Your task to perform on an android device: uninstall "Calculator" Image 0: 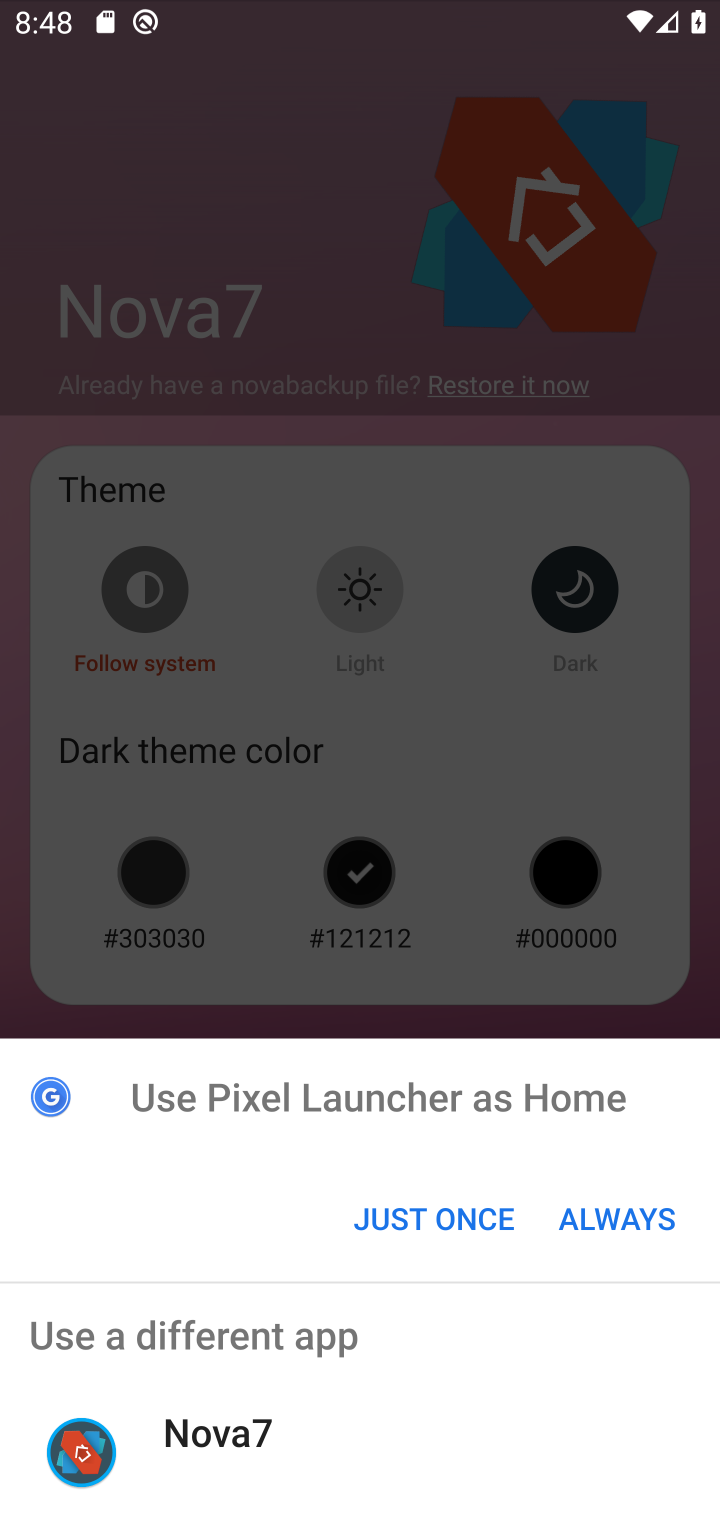
Step 0: press home button
Your task to perform on an android device: uninstall "Calculator" Image 1: 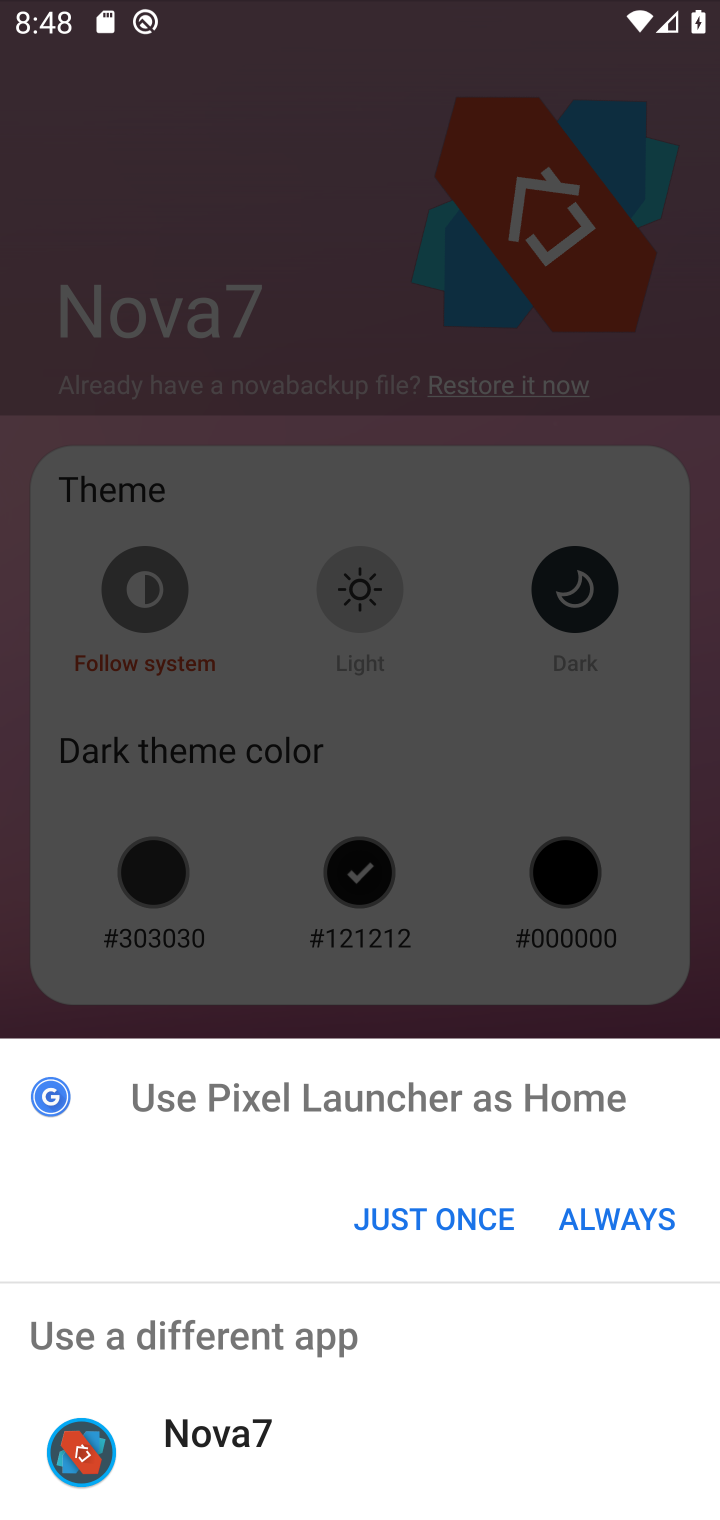
Step 1: click (457, 1219)
Your task to perform on an android device: uninstall "Calculator" Image 2: 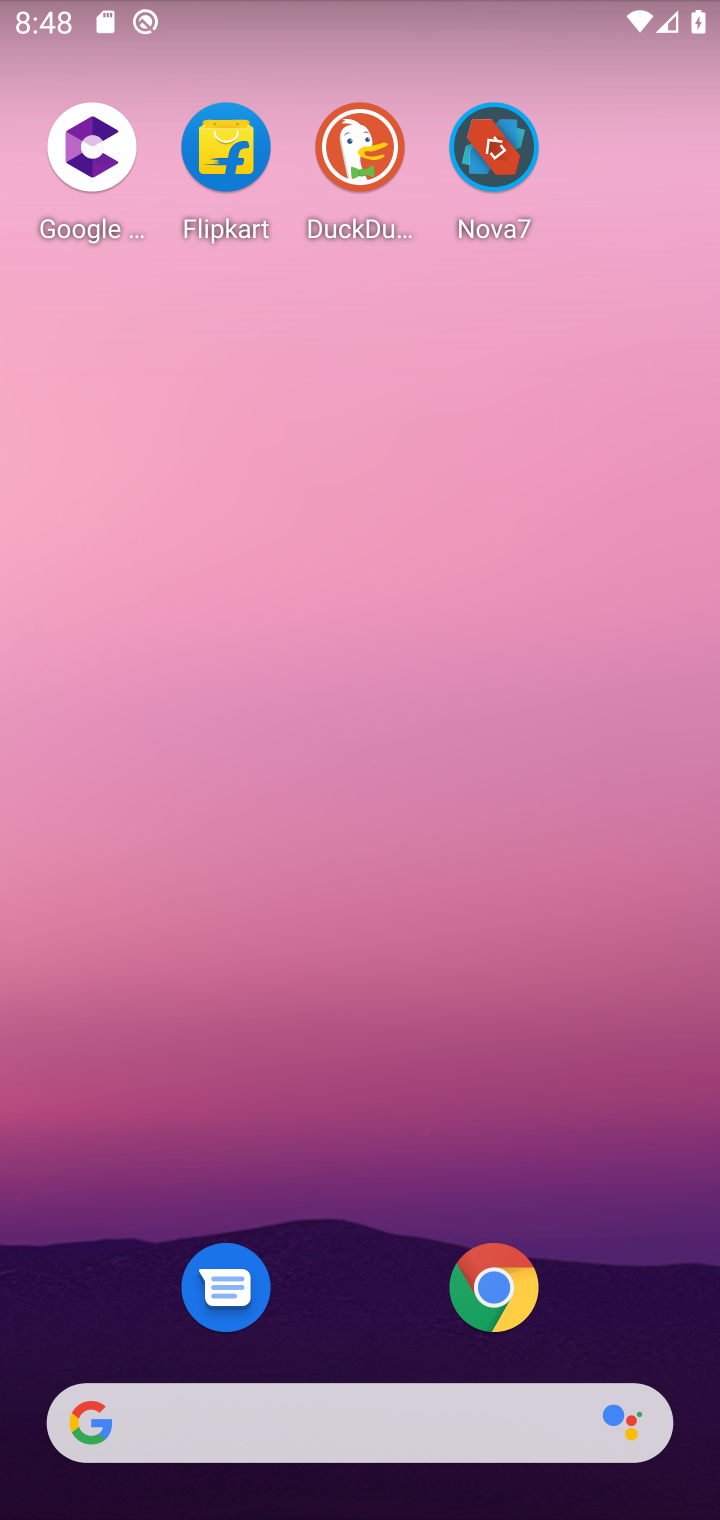
Step 2: drag from (327, 1286) to (277, 78)
Your task to perform on an android device: uninstall "Calculator" Image 3: 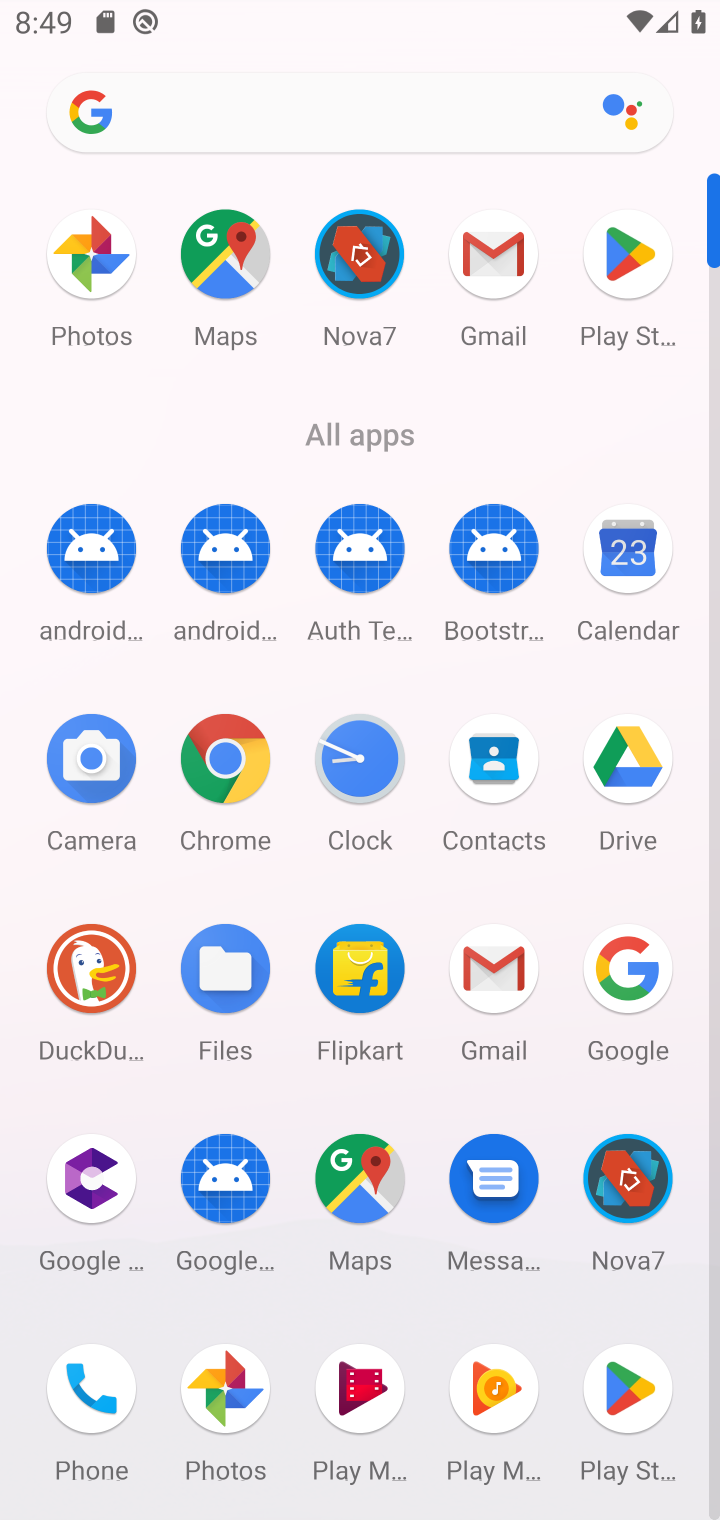
Step 3: click (632, 261)
Your task to perform on an android device: uninstall "Calculator" Image 4: 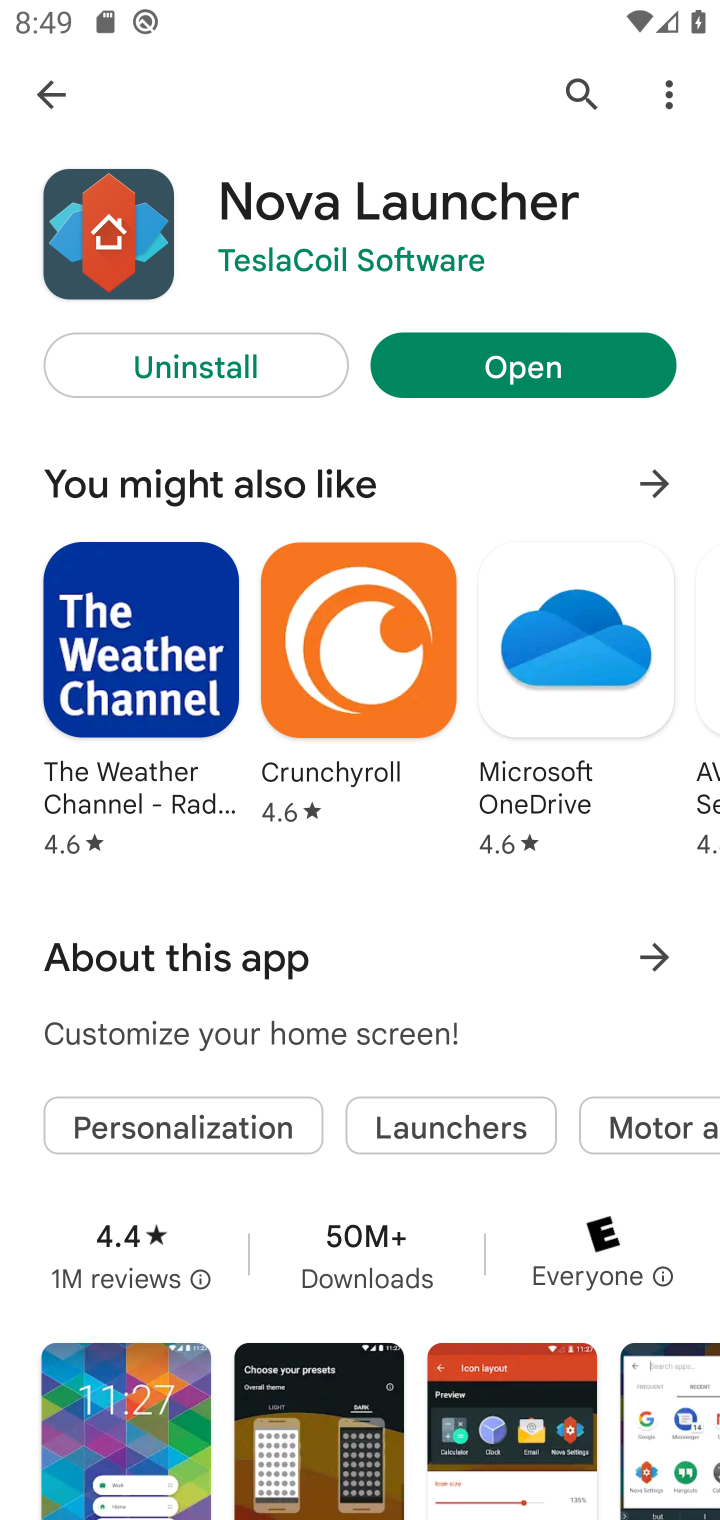
Step 4: click (573, 77)
Your task to perform on an android device: uninstall "Calculator" Image 5: 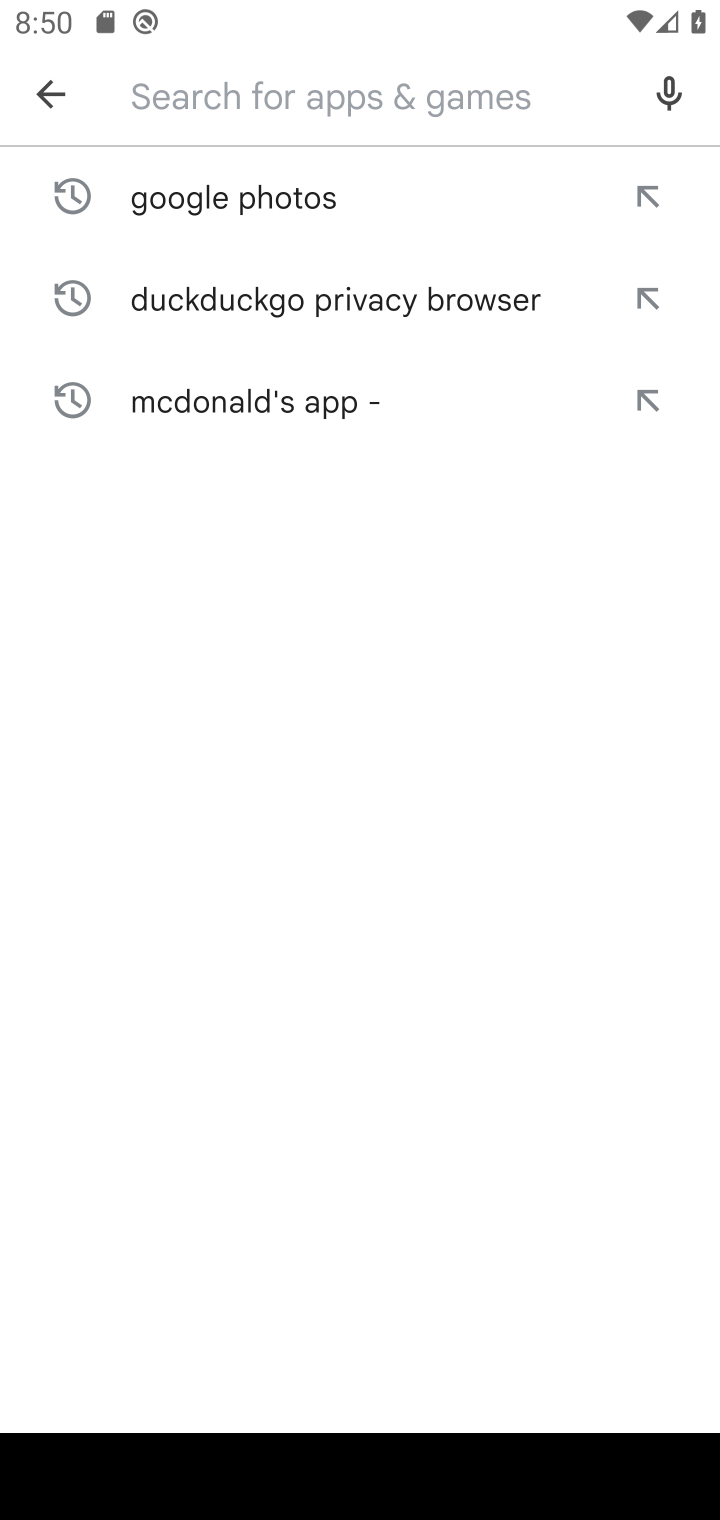
Step 5: type "Calculato"
Your task to perform on an android device: uninstall "Calculator" Image 6: 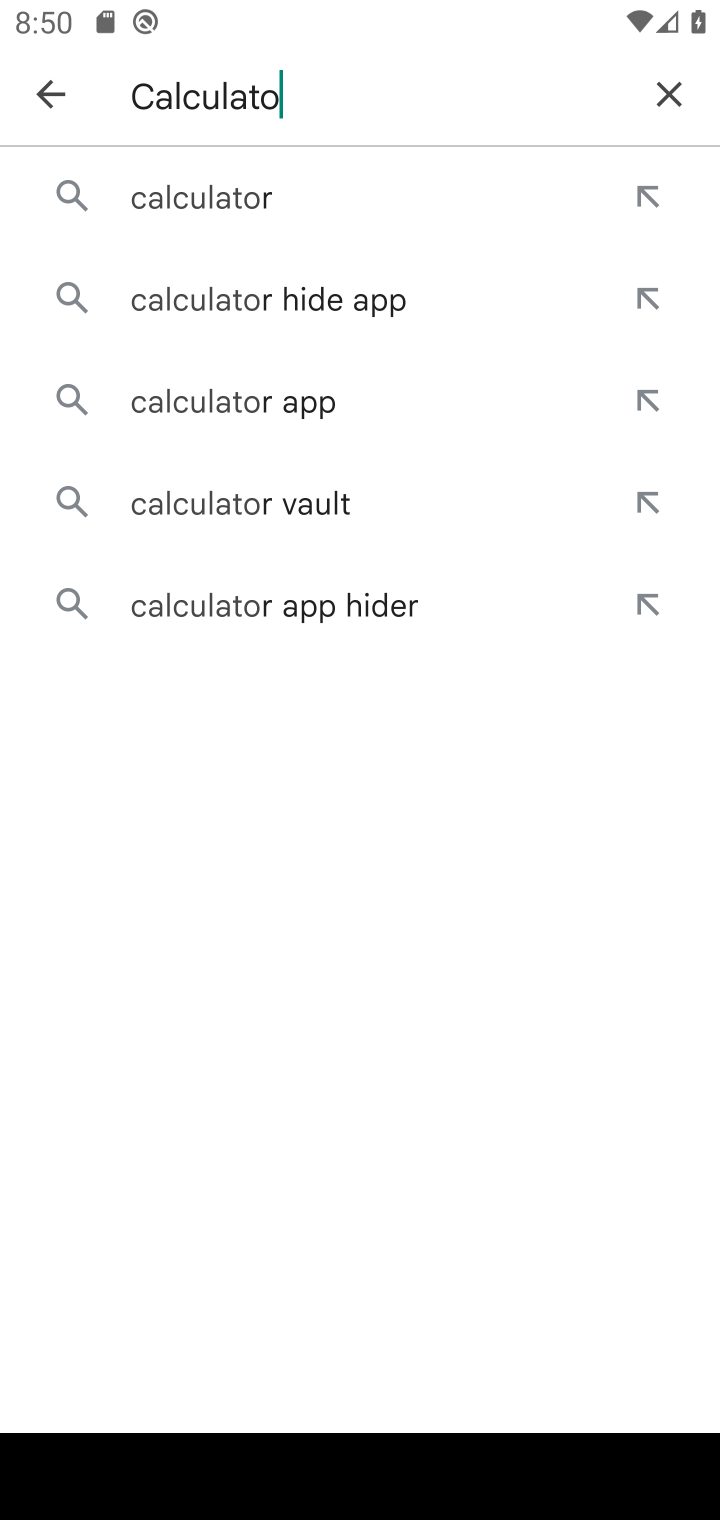
Step 6: click (182, 202)
Your task to perform on an android device: uninstall "Calculator" Image 7: 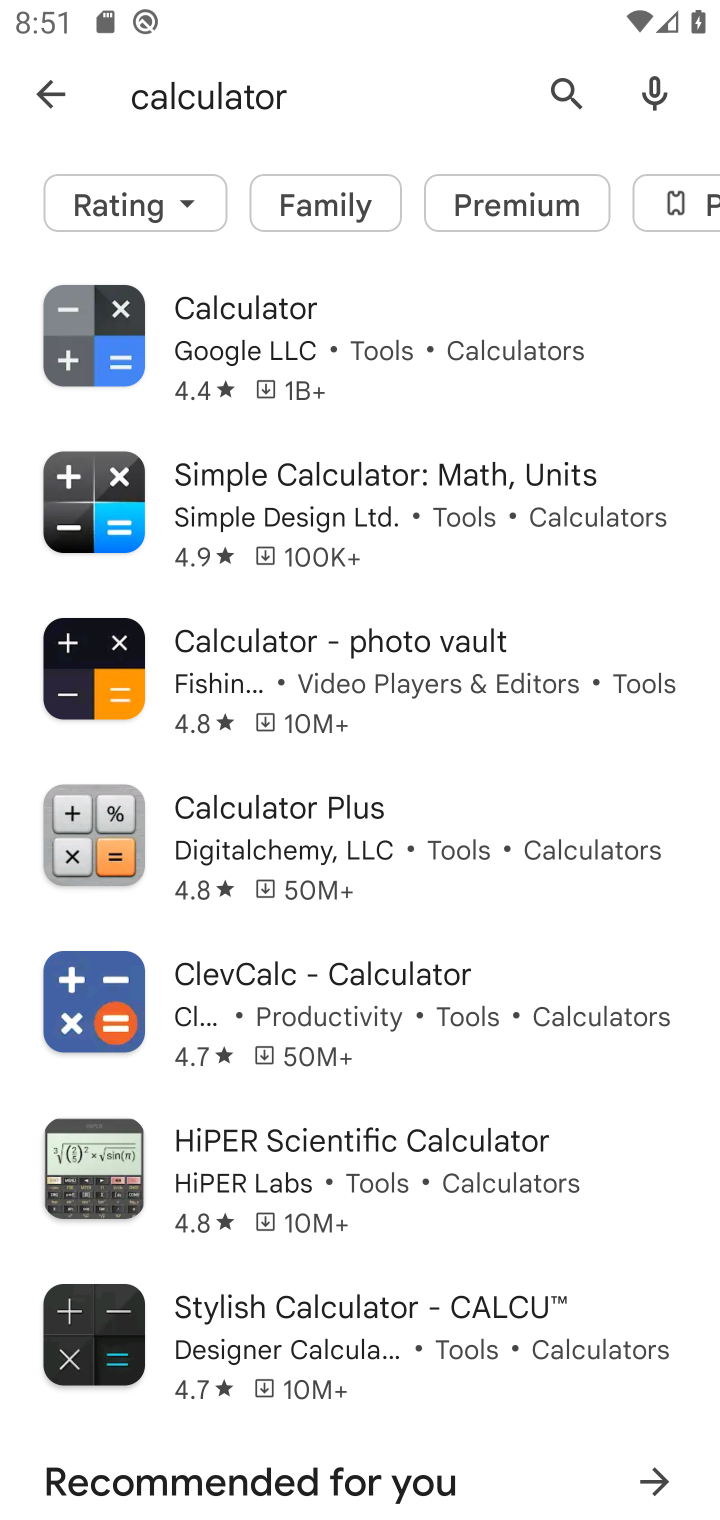
Step 7: click (248, 307)
Your task to perform on an android device: uninstall "Calculator" Image 8: 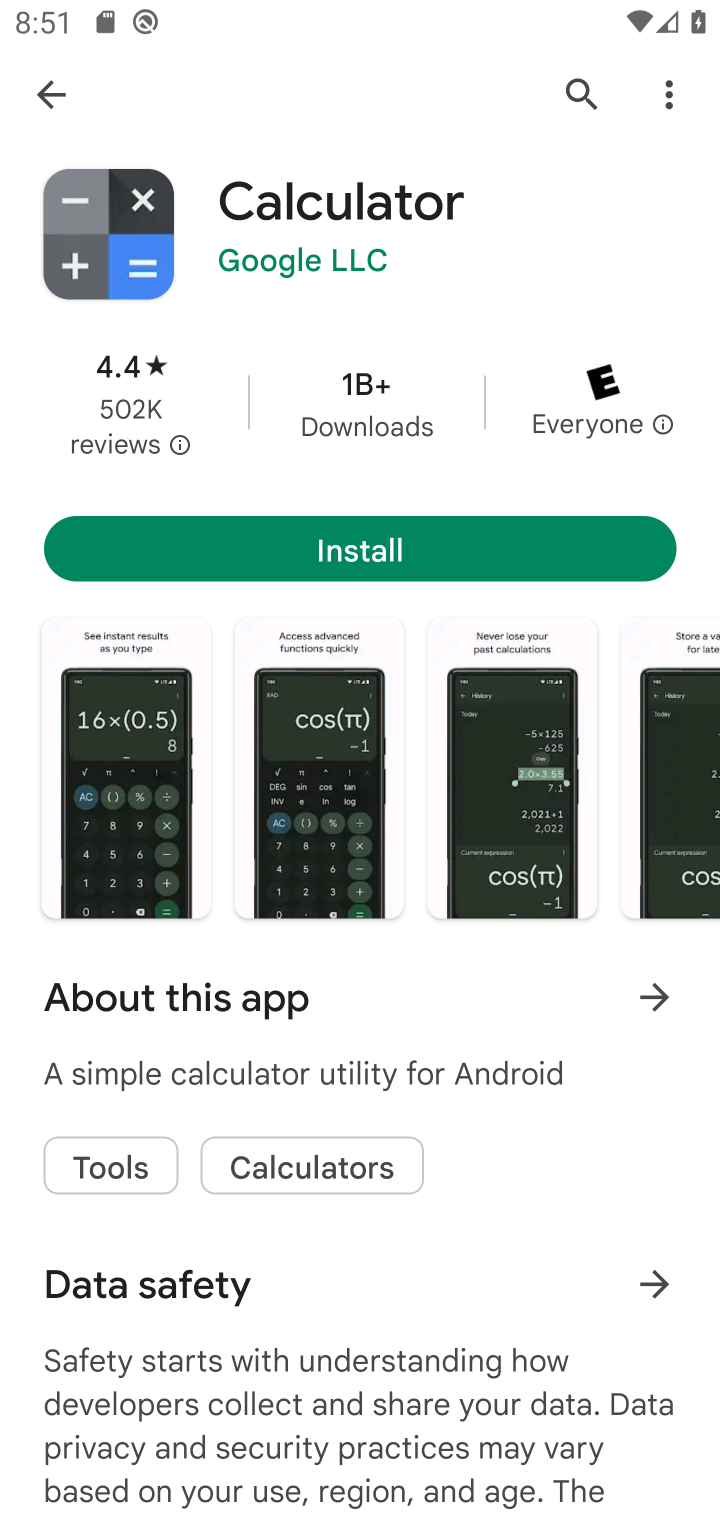
Step 8: task complete